Your task to perform on an android device: Go to settings Image 0: 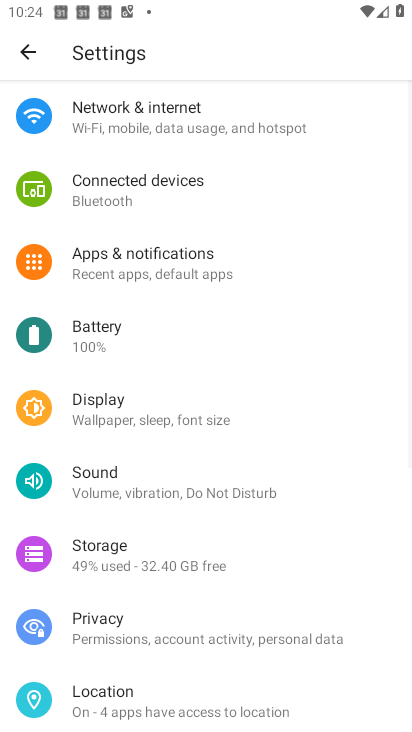
Step 0: press home button
Your task to perform on an android device: Go to settings Image 1: 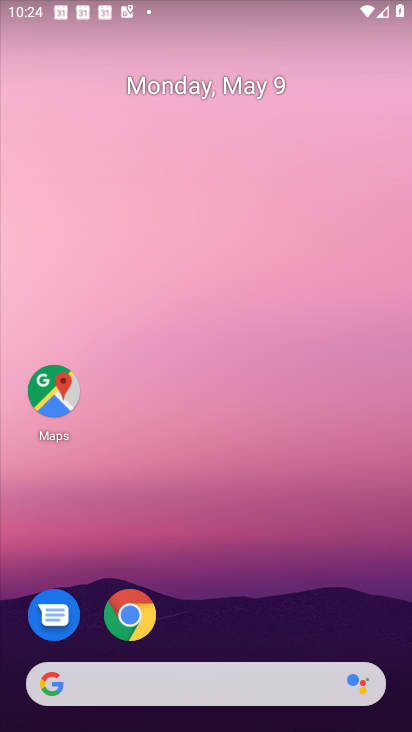
Step 1: drag from (299, 677) to (285, 293)
Your task to perform on an android device: Go to settings Image 2: 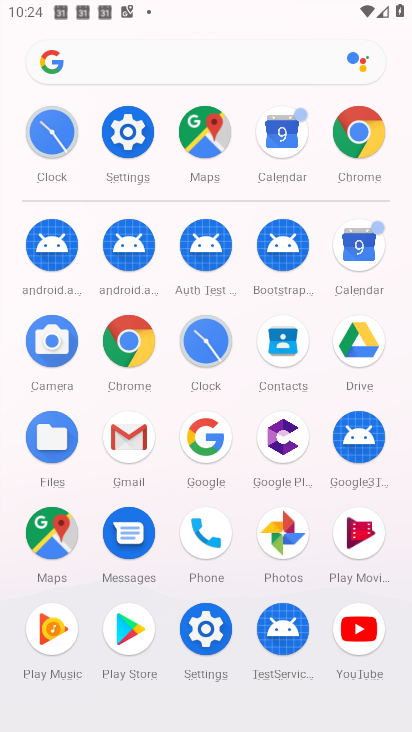
Step 2: click (187, 626)
Your task to perform on an android device: Go to settings Image 3: 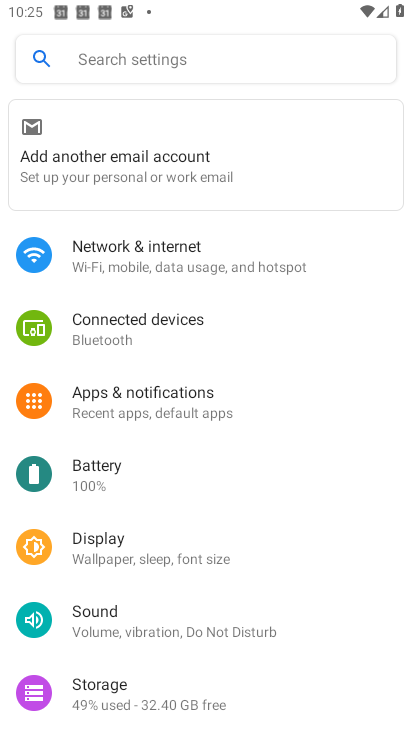
Step 3: task complete